Your task to perform on an android device: show emergency info Image 0: 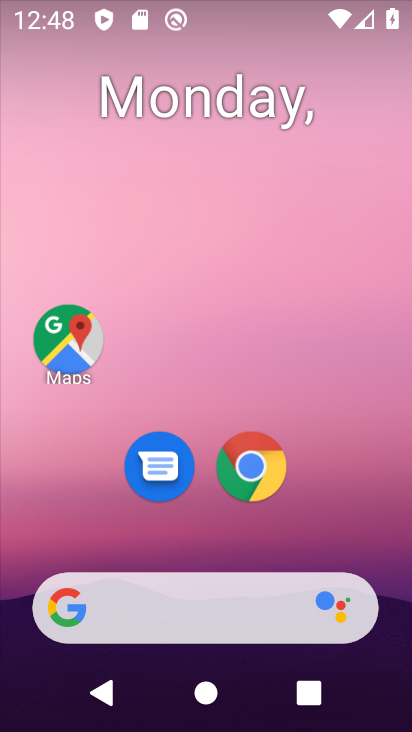
Step 0: drag from (192, 544) to (213, 5)
Your task to perform on an android device: show emergency info Image 1: 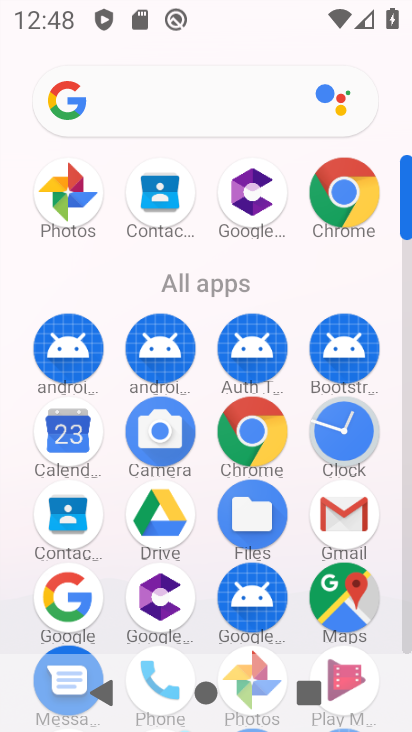
Step 1: drag from (216, 570) to (232, 145)
Your task to perform on an android device: show emergency info Image 2: 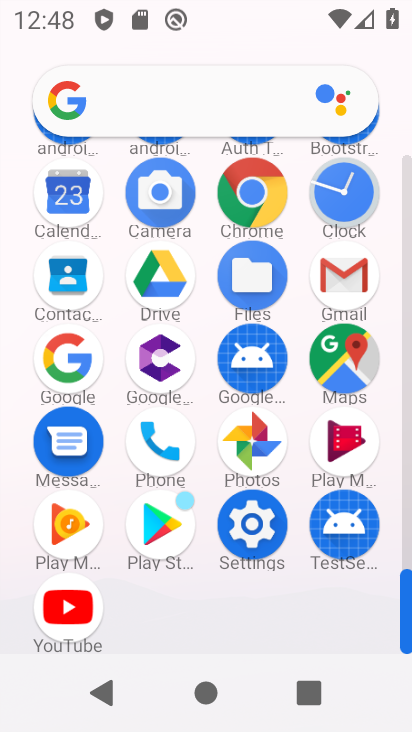
Step 2: click (253, 531)
Your task to perform on an android device: show emergency info Image 3: 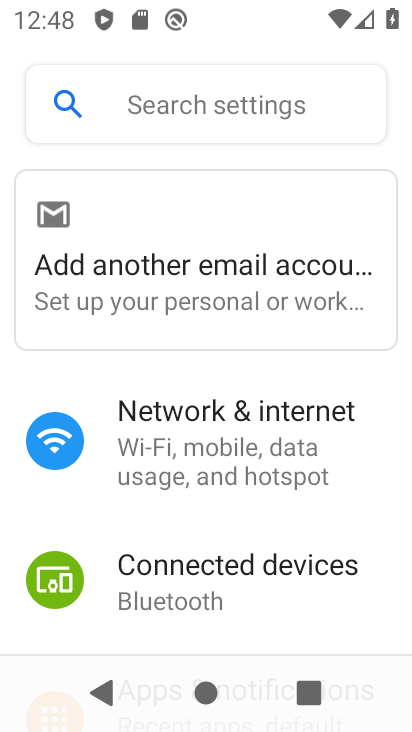
Step 3: drag from (227, 594) to (249, 84)
Your task to perform on an android device: show emergency info Image 4: 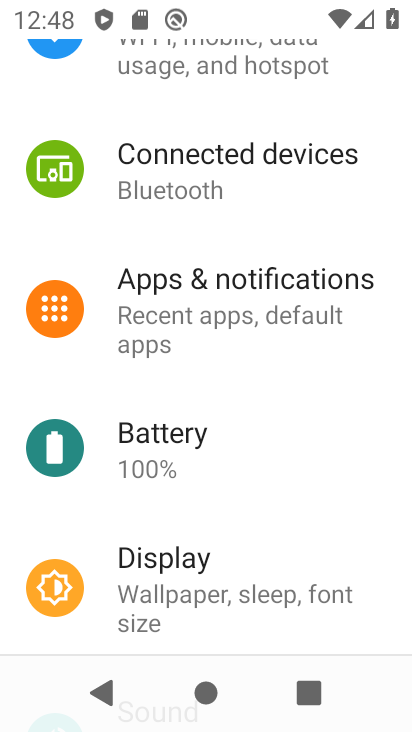
Step 4: drag from (182, 565) to (210, 159)
Your task to perform on an android device: show emergency info Image 5: 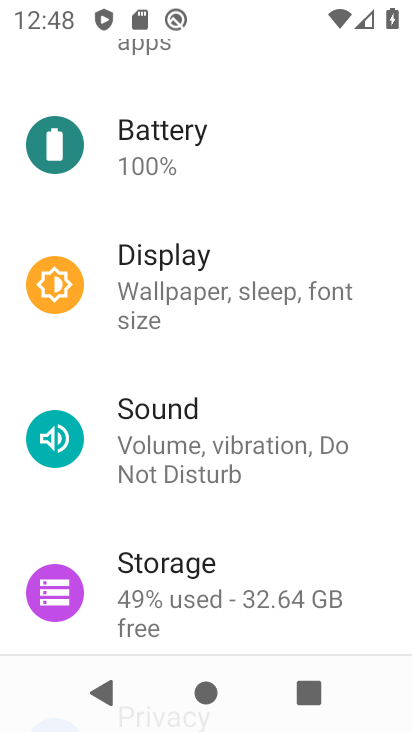
Step 5: drag from (170, 545) to (202, 149)
Your task to perform on an android device: show emergency info Image 6: 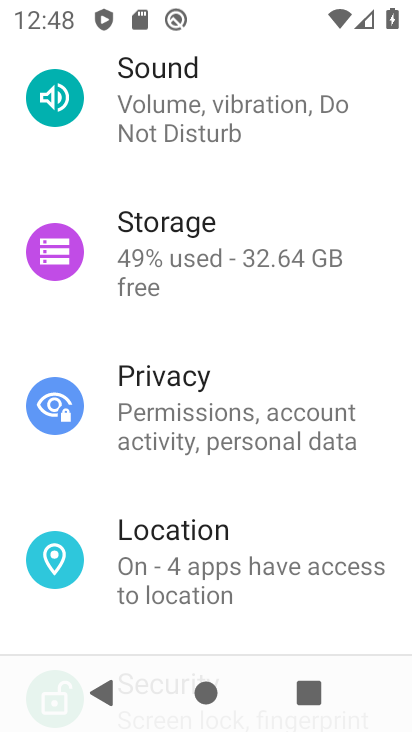
Step 6: drag from (191, 568) to (231, 41)
Your task to perform on an android device: show emergency info Image 7: 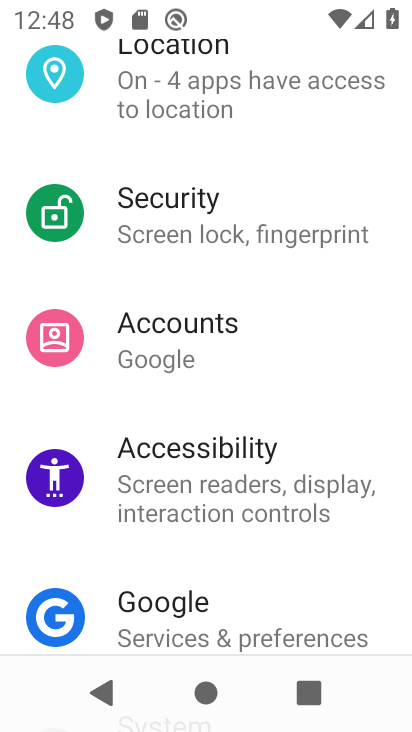
Step 7: drag from (196, 496) to (248, 5)
Your task to perform on an android device: show emergency info Image 8: 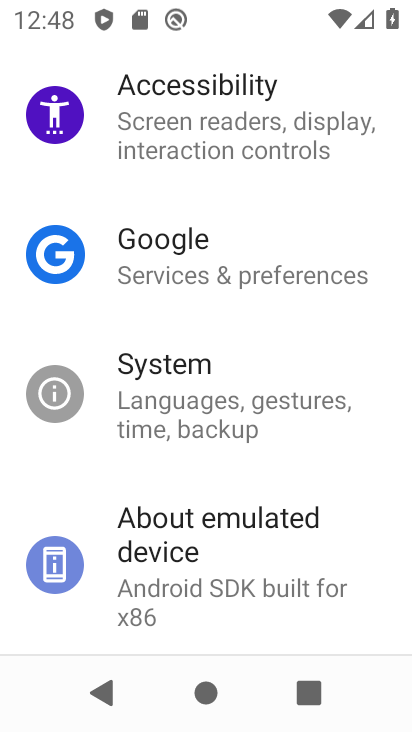
Step 8: click (200, 560)
Your task to perform on an android device: show emergency info Image 9: 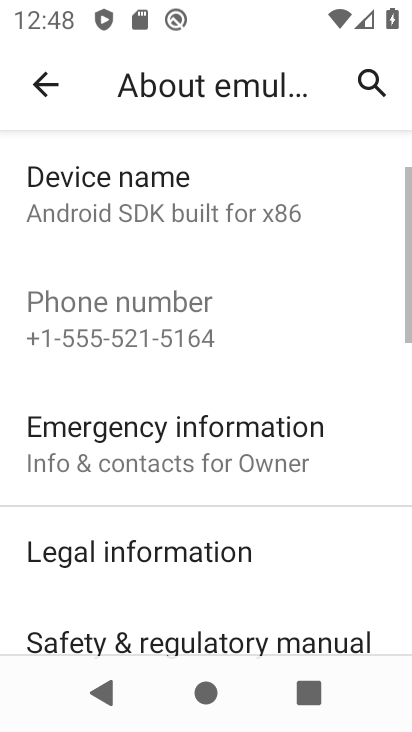
Step 9: click (180, 455)
Your task to perform on an android device: show emergency info Image 10: 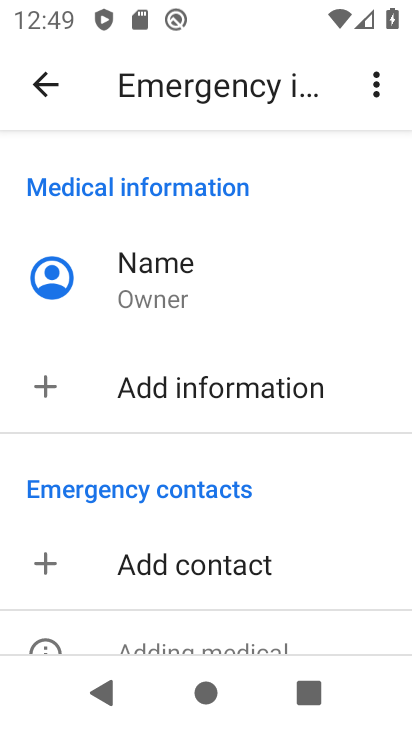
Step 10: task complete